Your task to perform on an android device: read, delete, or share a saved page in the chrome app Image 0: 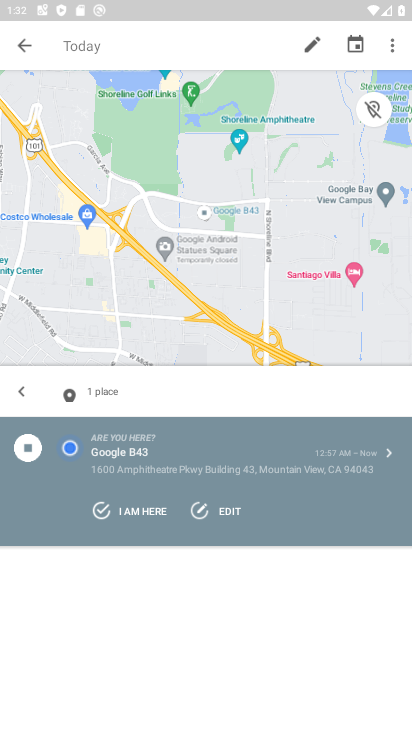
Step 0: press home button
Your task to perform on an android device: read, delete, or share a saved page in the chrome app Image 1: 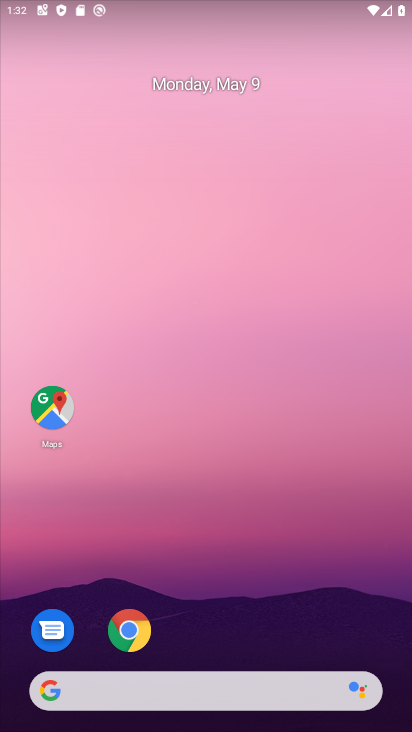
Step 1: drag from (268, 722) to (253, 230)
Your task to perform on an android device: read, delete, or share a saved page in the chrome app Image 2: 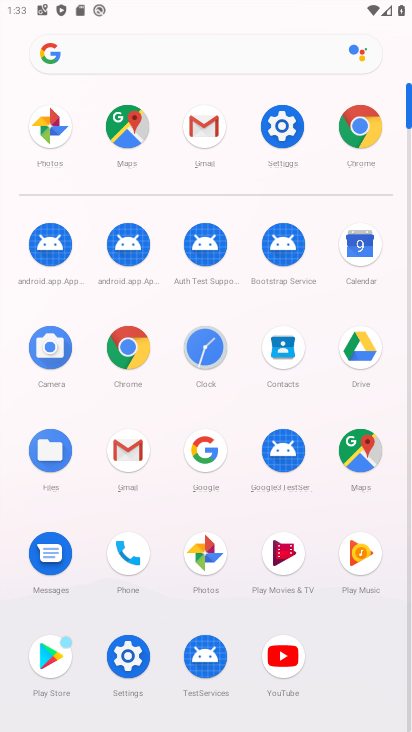
Step 2: click (122, 339)
Your task to perform on an android device: read, delete, or share a saved page in the chrome app Image 3: 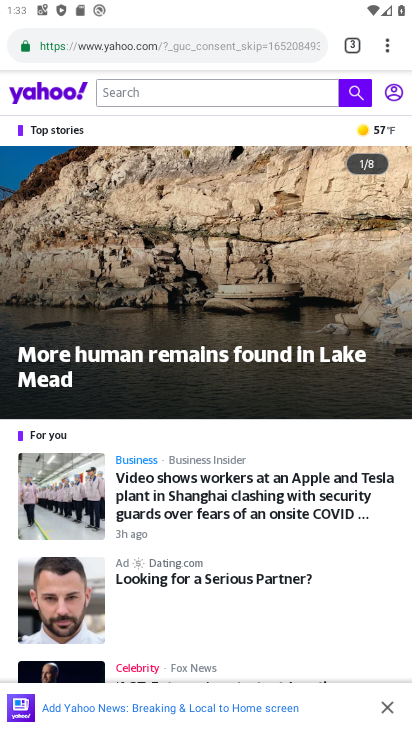
Step 3: click (377, 51)
Your task to perform on an android device: read, delete, or share a saved page in the chrome app Image 4: 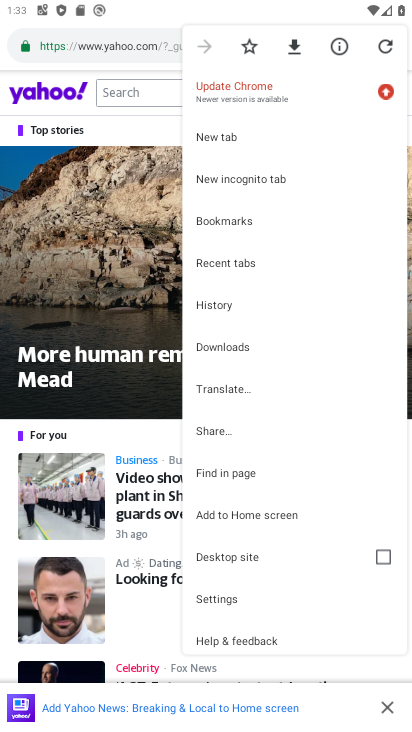
Step 4: click (218, 436)
Your task to perform on an android device: read, delete, or share a saved page in the chrome app Image 5: 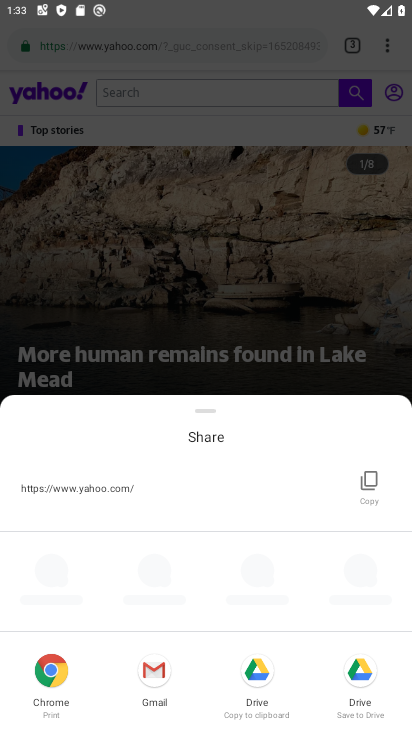
Step 5: click (54, 665)
Your task to perform on an android device: read, delete, or share a saved page in the chrome app Image 6: 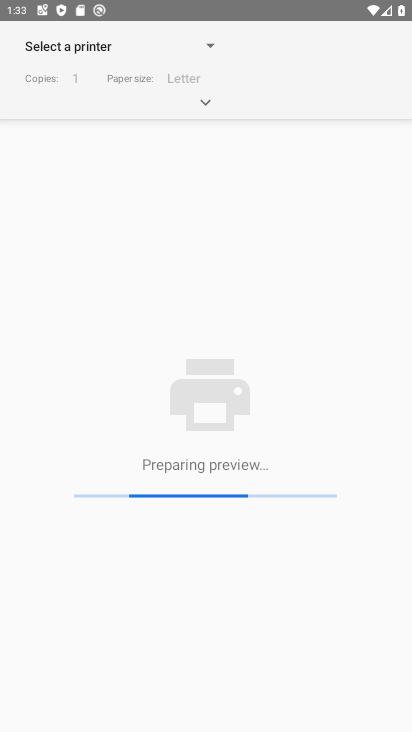
Step 6: task complete